Your task to perform on an android device: stop showing notifications on the lock screen Image 0: 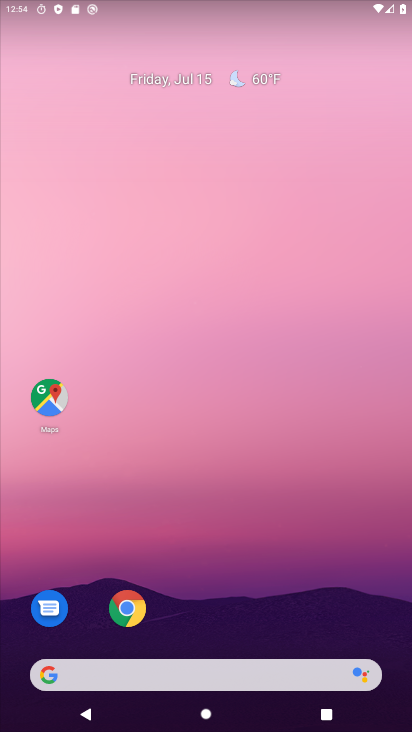
Step 0: press home button
Your task to perform on an android device: stop showing notifications on the lock screen Image 1: 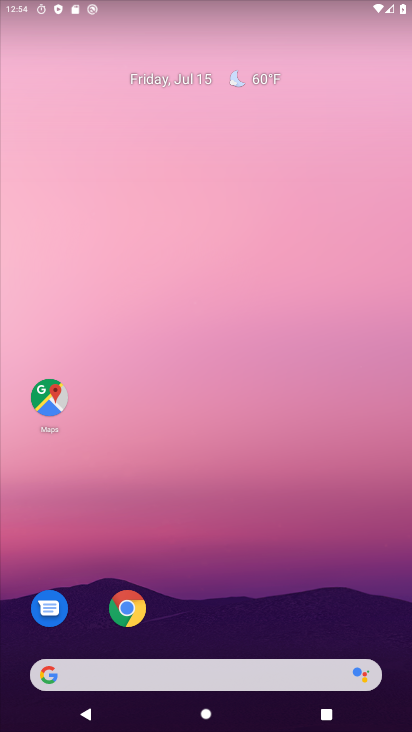
Step 1: drag from (227, 612) to (210, 28)
Your task to perform on an android device: stop showing notifications on the lock screen Image 2: 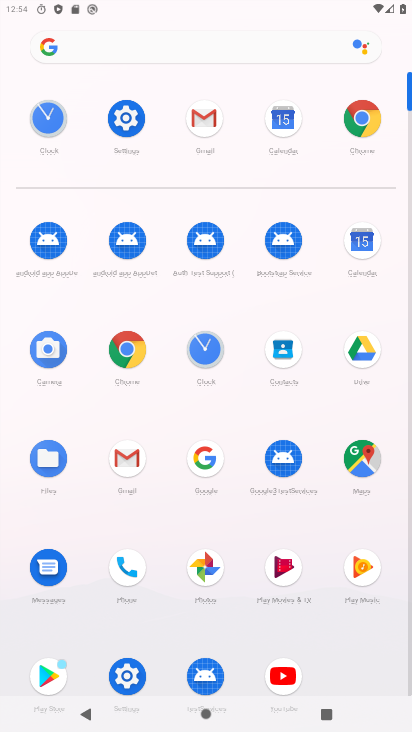
Step 2: click (116, 132)
Your task to perform on an android device: stop showing notifications on the lock screen Image 3: 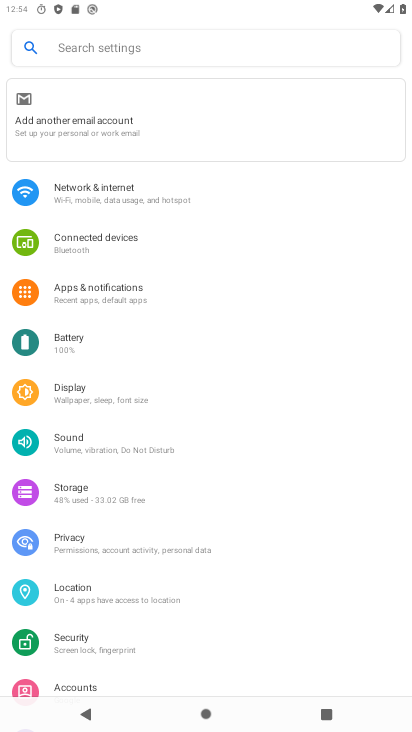
Step 3: click (62, 288)
Your task to perform on an android device: stop showing notifications on the lock screen Image 4: 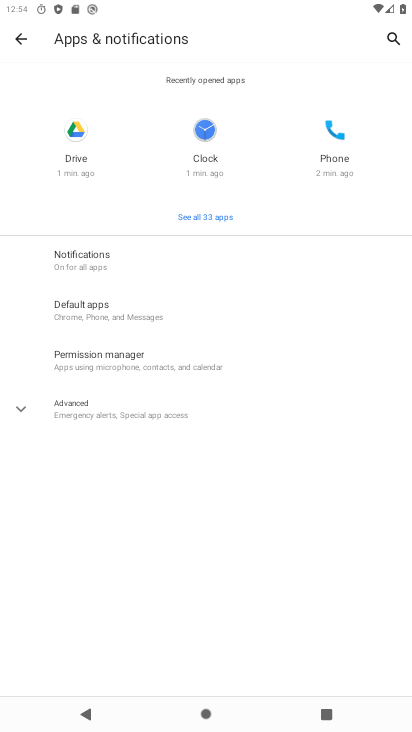
Step 4: click (81, 263)
Your task to perform on an android device: stop showing notifications on the lock screen Image 5: 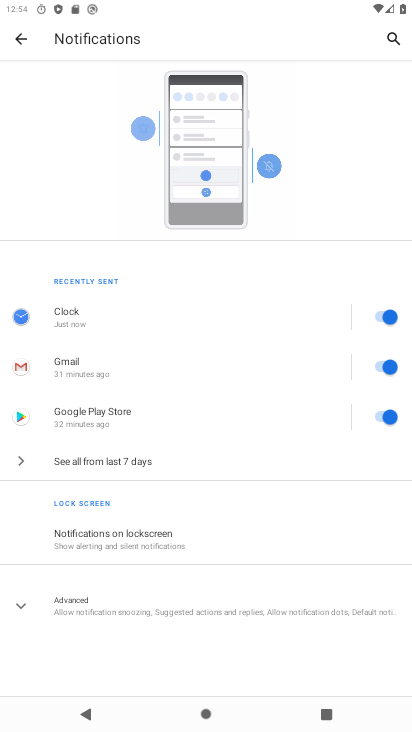
Step 5: click (77, 536)
Your task to perform on an android device: stop showing notifications on the lock screen Image 6: 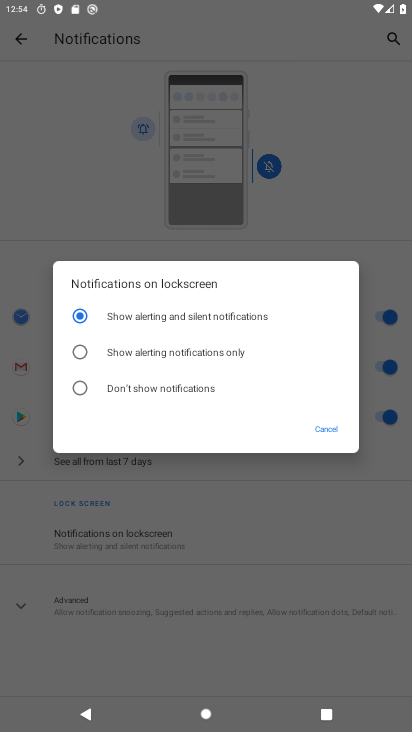
Step 6: click (93, 382)
Your task to perform on an android device: stop showing notifications on the lock screen Image 7: 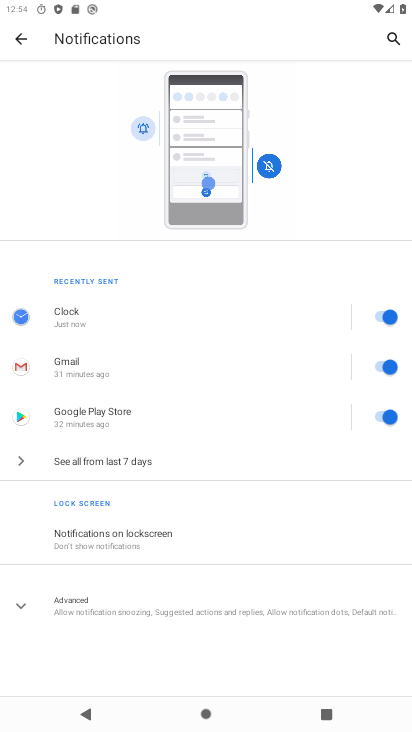
Step 7: task complete